Your task to perform on an android device: set default search engine in the chrome app Image 0: 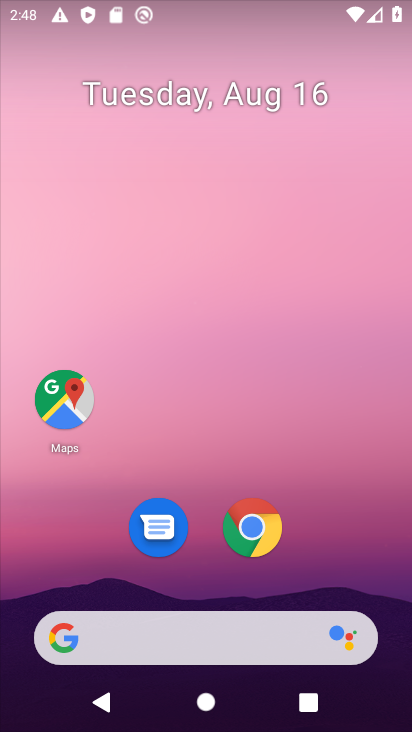
Step 0: click (252, 529)
Your task to perform on an android device: set default search engine in the chrome app Image 1: 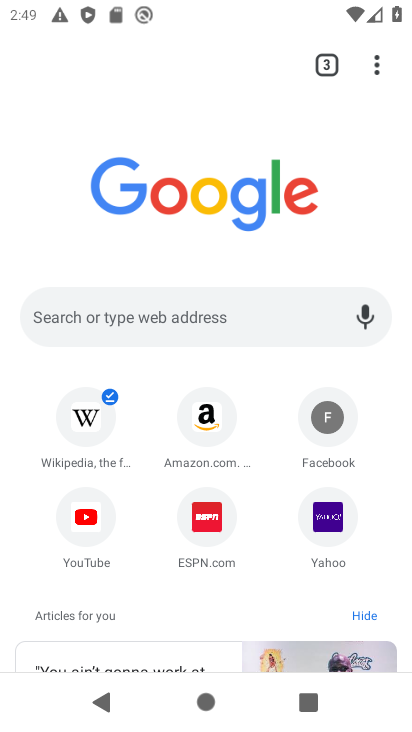
Step 1: click (375, 62)
Your task to perform on an android device: set default search engine in the chrome app Image 2: 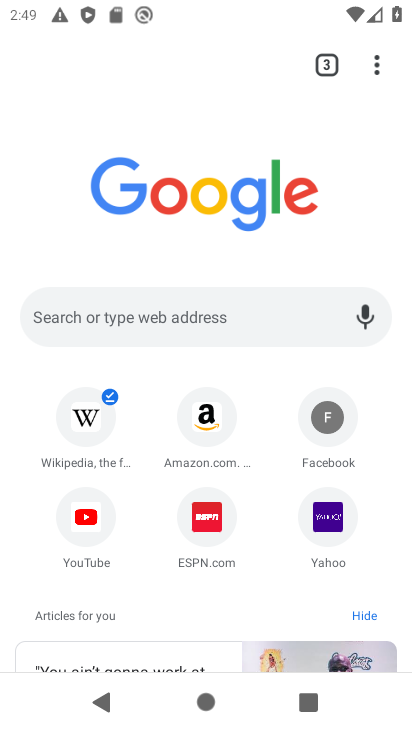
Step 2: click (376, 61)
Your task to perform on an android device: set default search engine in the chrome app Image 3: 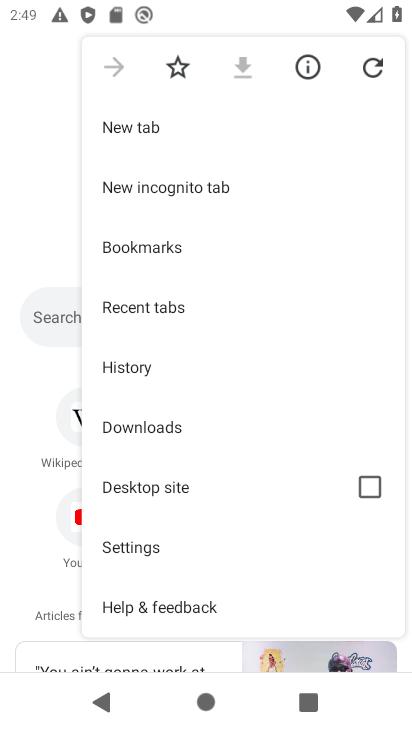
Step 3: click (172, 546)
Your task to perform on an android device: set default search engine in the chrome app Image 4: 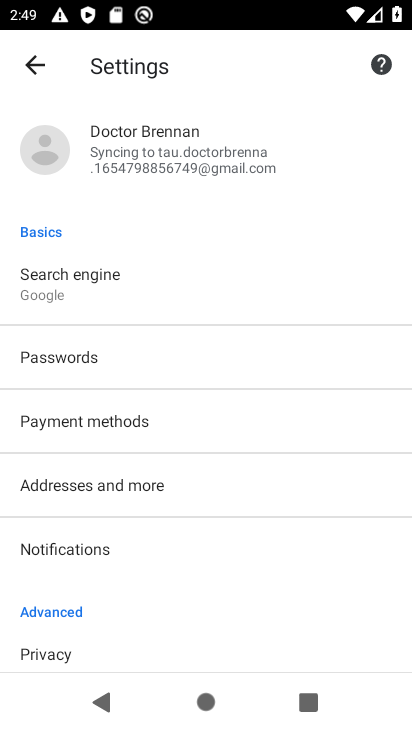
Step 4: click (116, 295)
Your task to perform on an android device: set default search engine in the chrome app Image 5: 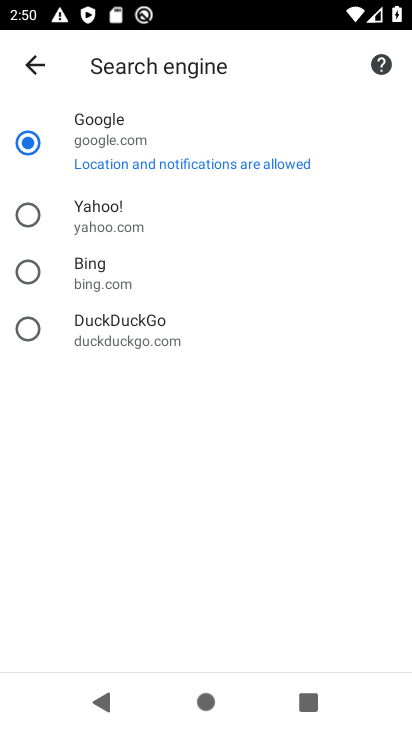
Step 5: click (28, 273)
Your task to perform on an android device: set default search engine in the chrome app Image 6: 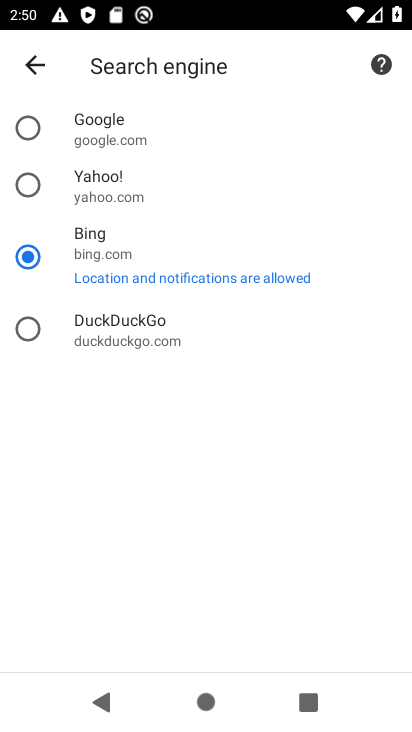
Step 6: task complete